Your task to perform on an android device: View the shopping cart on amazon. Search for razer nari on amazon, select the first entry, and add it to the cart. Image 0: 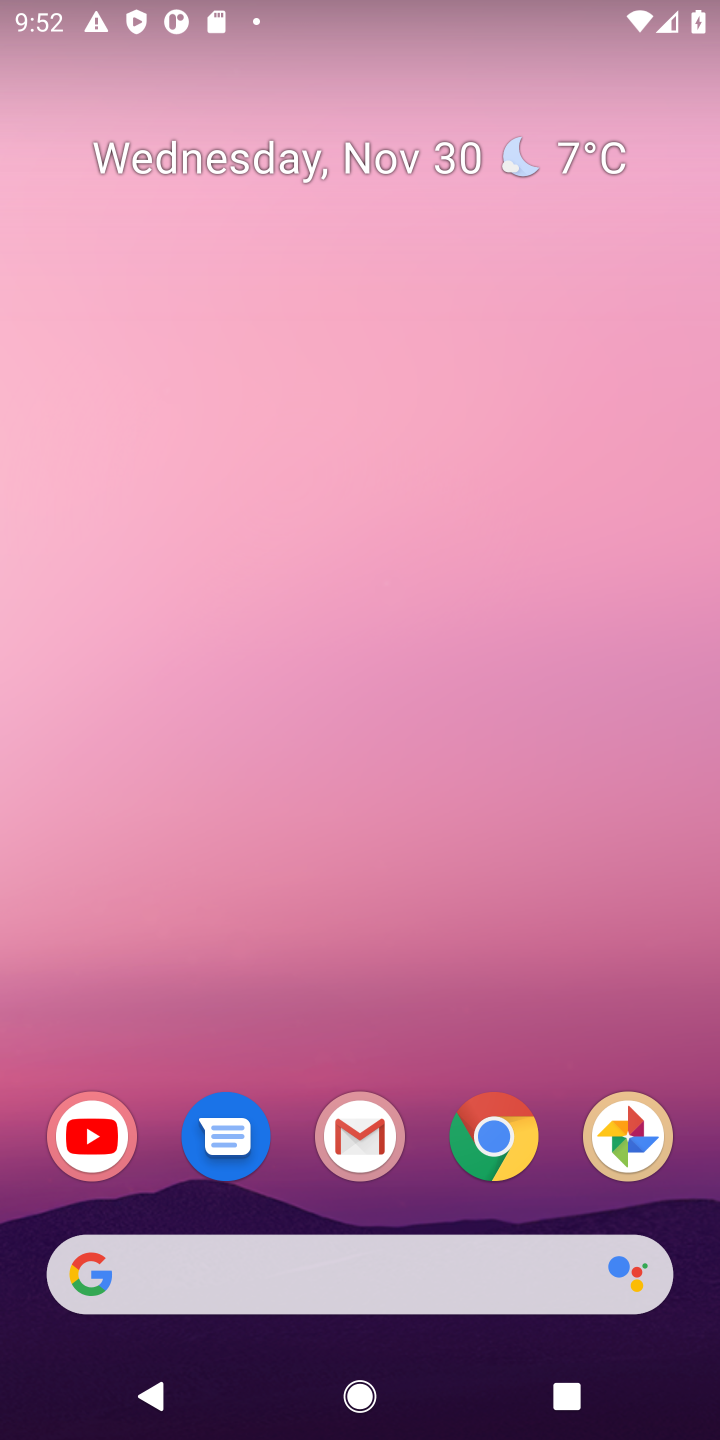
Step 0: click (507, 1131)
Your task to perform on an android device: View the shopping cart on amazon. Search for razer nari on amazon, select the first entry, and add it to the cart. Image 1: 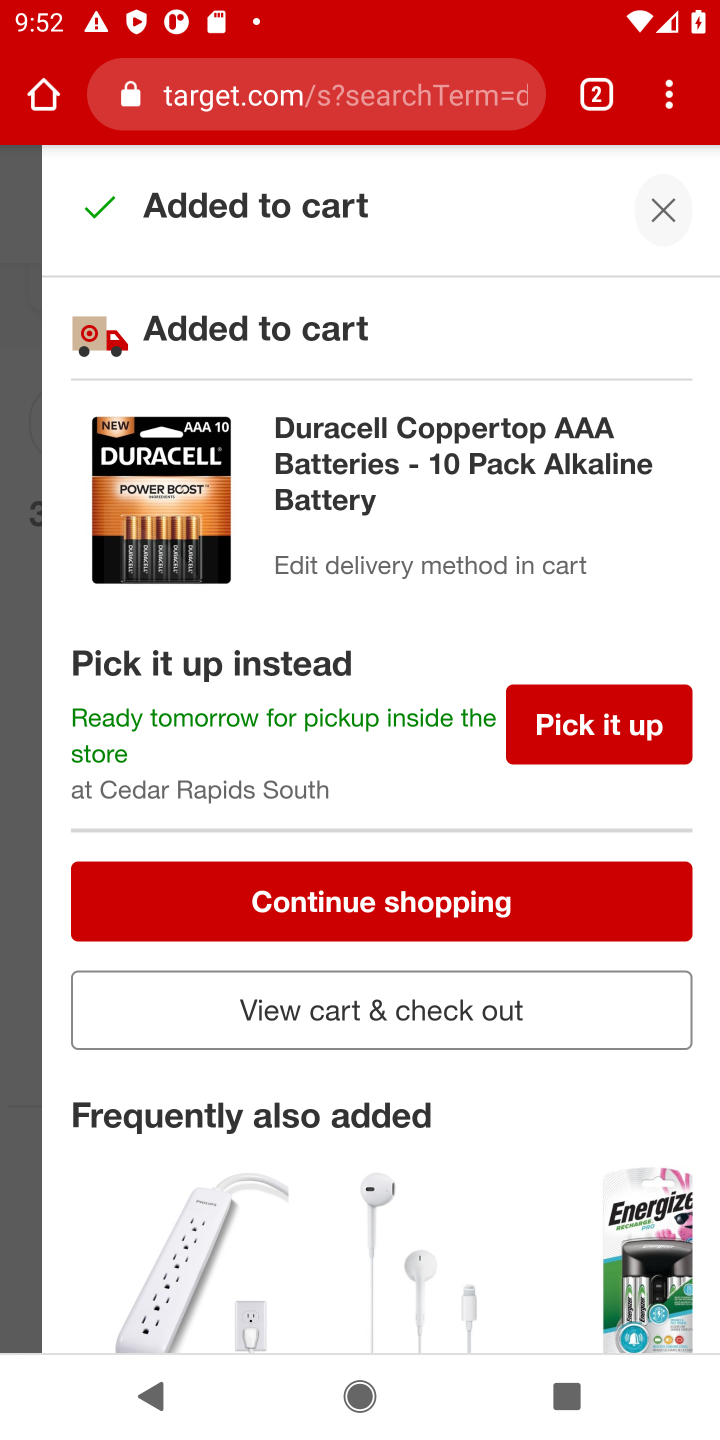
Step 1: click (222, 108)
Your task to perform on an android device: View the shopping cart on amazon. Search for razer nari on amazon, select the first entry, and add it to the cart. Image 2: 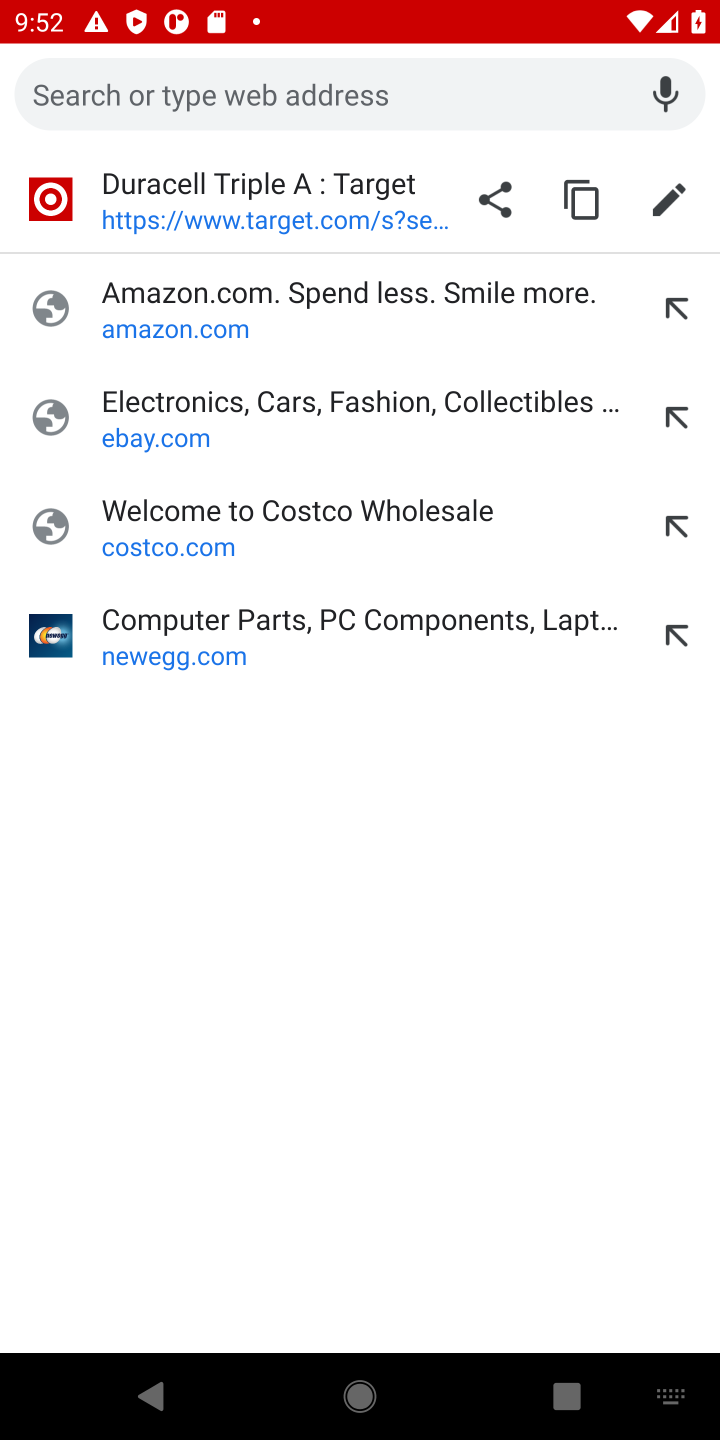
Step 2: click (158, 333)
Your task to perform on an android device: View the shopping cart on amazon. Search for razer nari on amazon, select the first entry, and add it to the cart. Image 3: 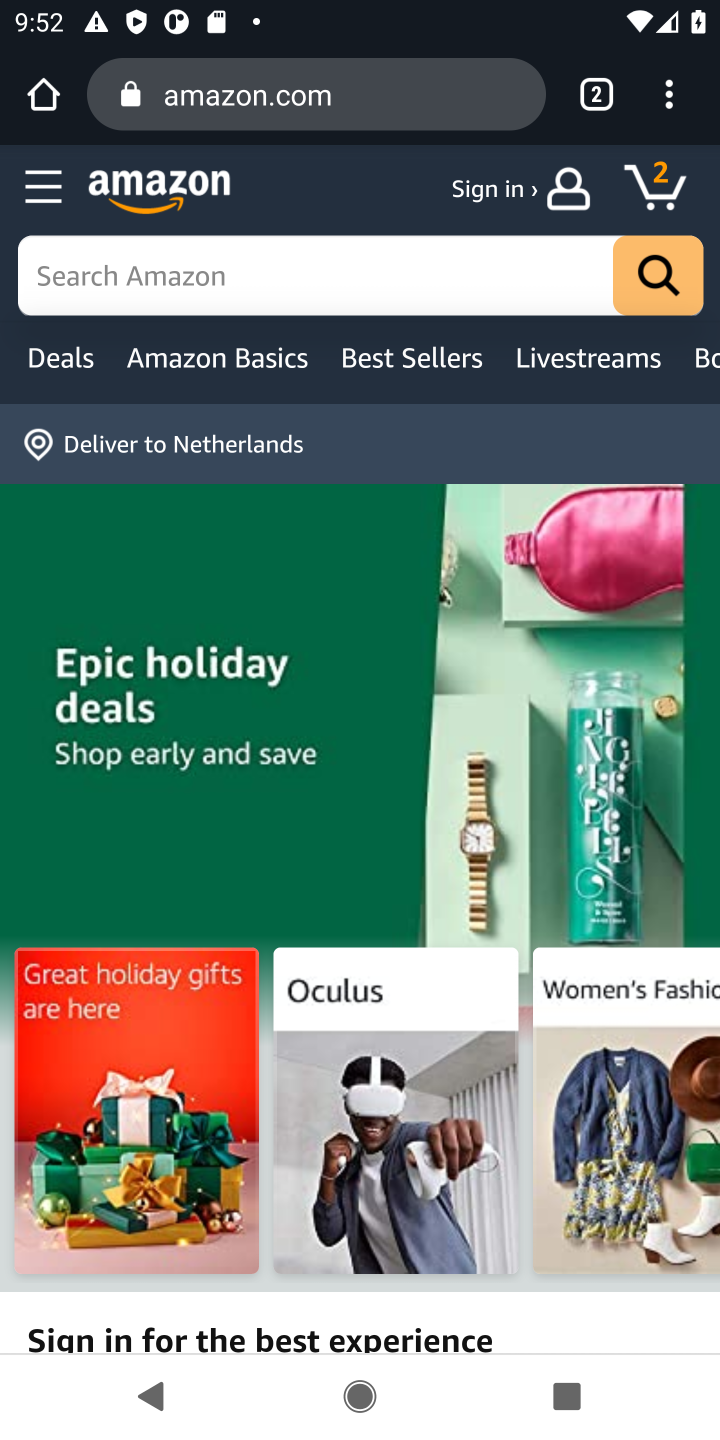
Step 3: click (663, 203)
Your task to perform on an android device: View the shopping cart on amazon. Search for razer nari on amazon, select the first entry, and add it to the cart. Image 4: 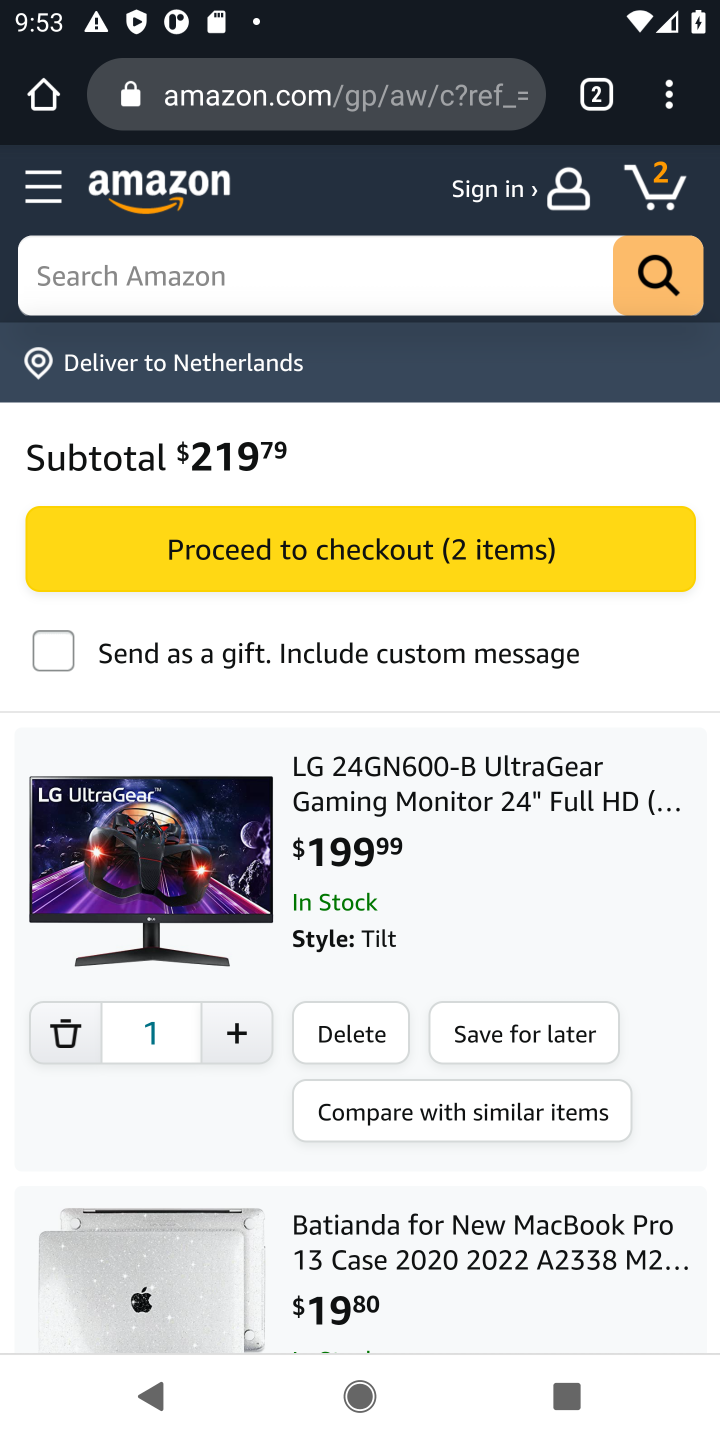
Step 4: drag from (669, 969) to (659, 609)
Your task to perform on an android device: View the shopping cart on amazon. Search for razer nari on amazon, select the first entry, and add it to the cart. Image 5: 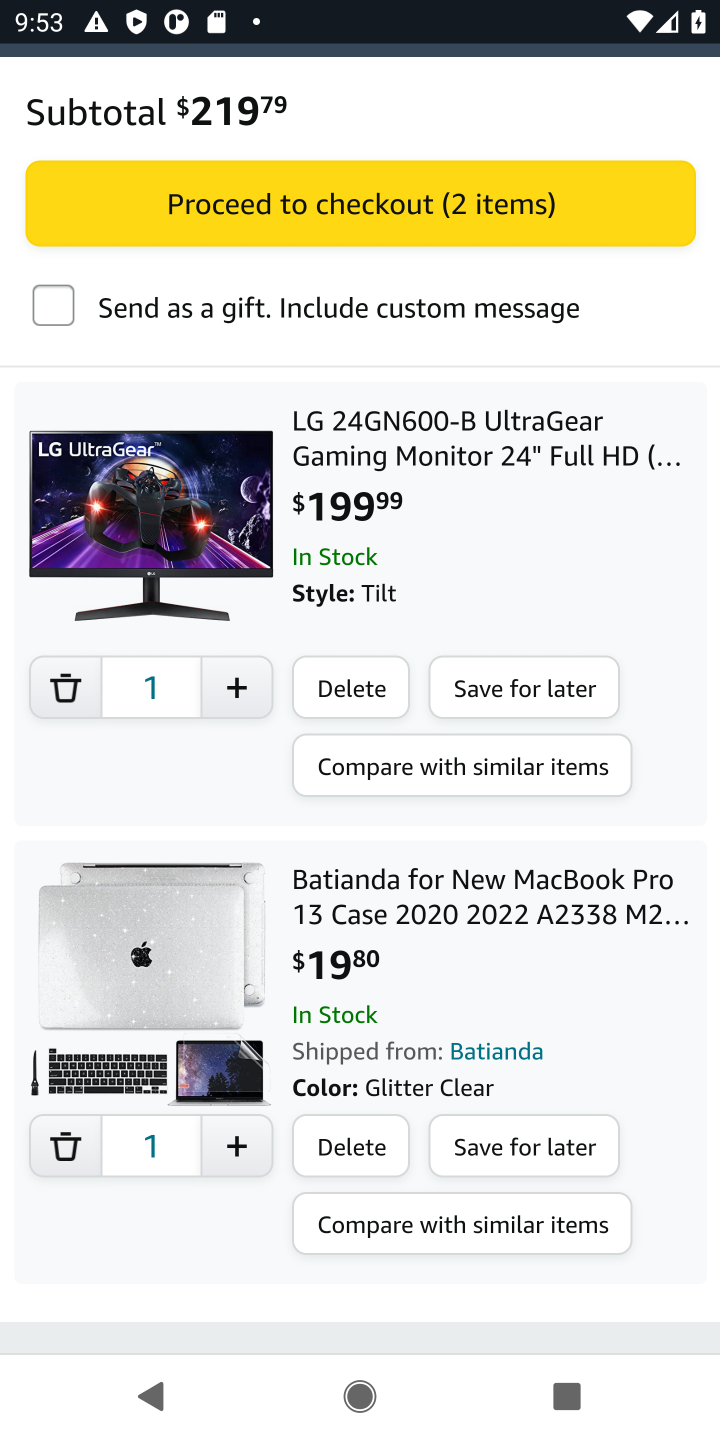
Step 5: drag from (676, 366) to (620, 942)
Your task to perform on an android device: View the shopping cart on amazon. Search for razer nari on amazon, select the first entry, and add it to the cart. Image 6: 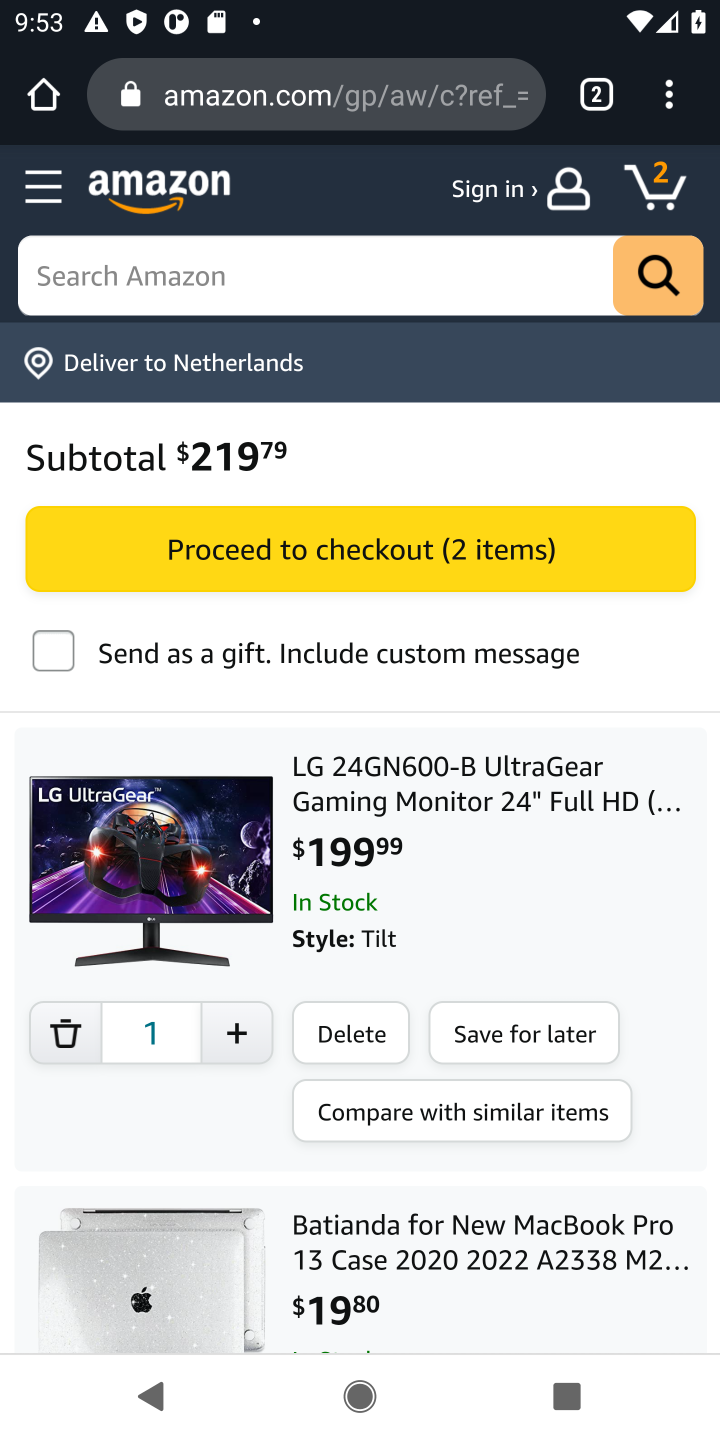
Step 6: click (167, 272)
Your task to perform on an android device: View the shopping cart on amazon. Search for razer nari on amazon, select the first entry, and add it to the cart. Image 7: 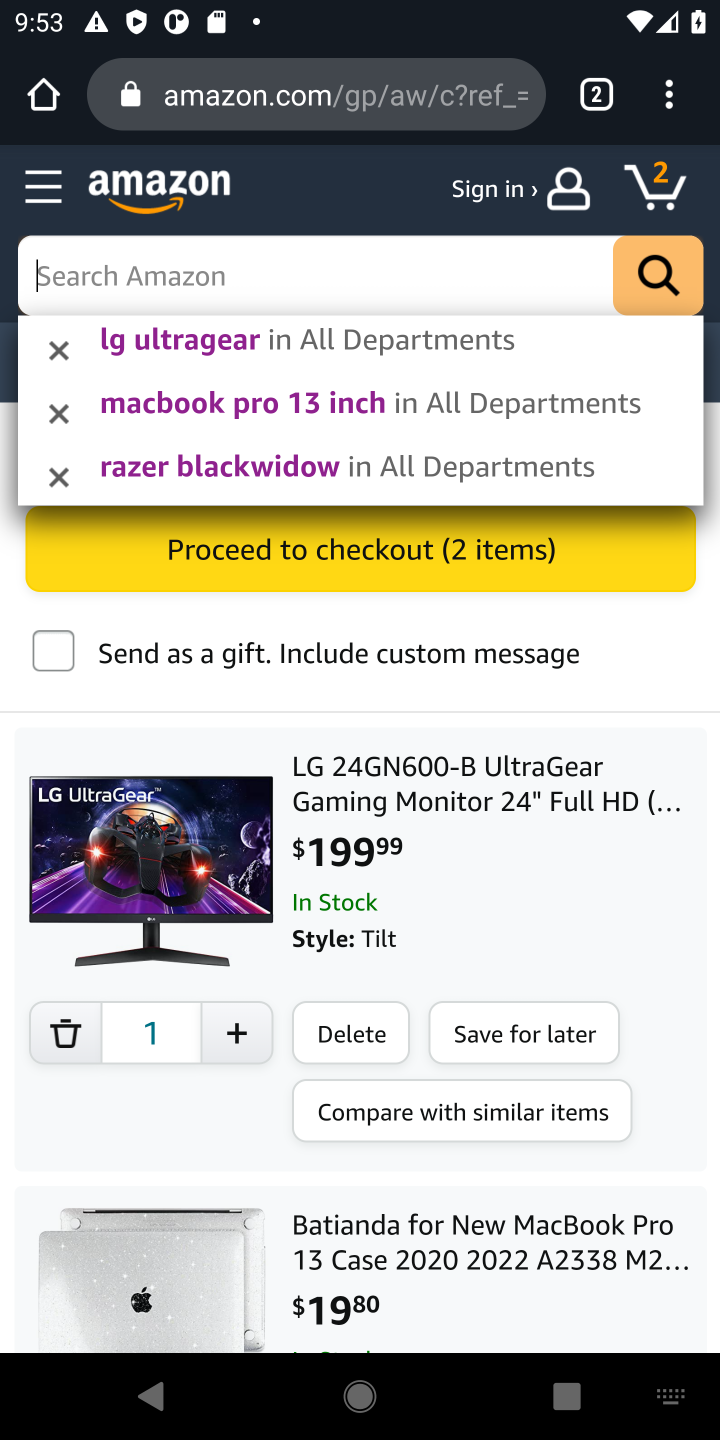
Step 7: type "razer nari"
Your task to perform on an android device: View the shopping cart on amazon. Search for razer nari on amazon, select the first entry, and add it to the cart. Image 8: 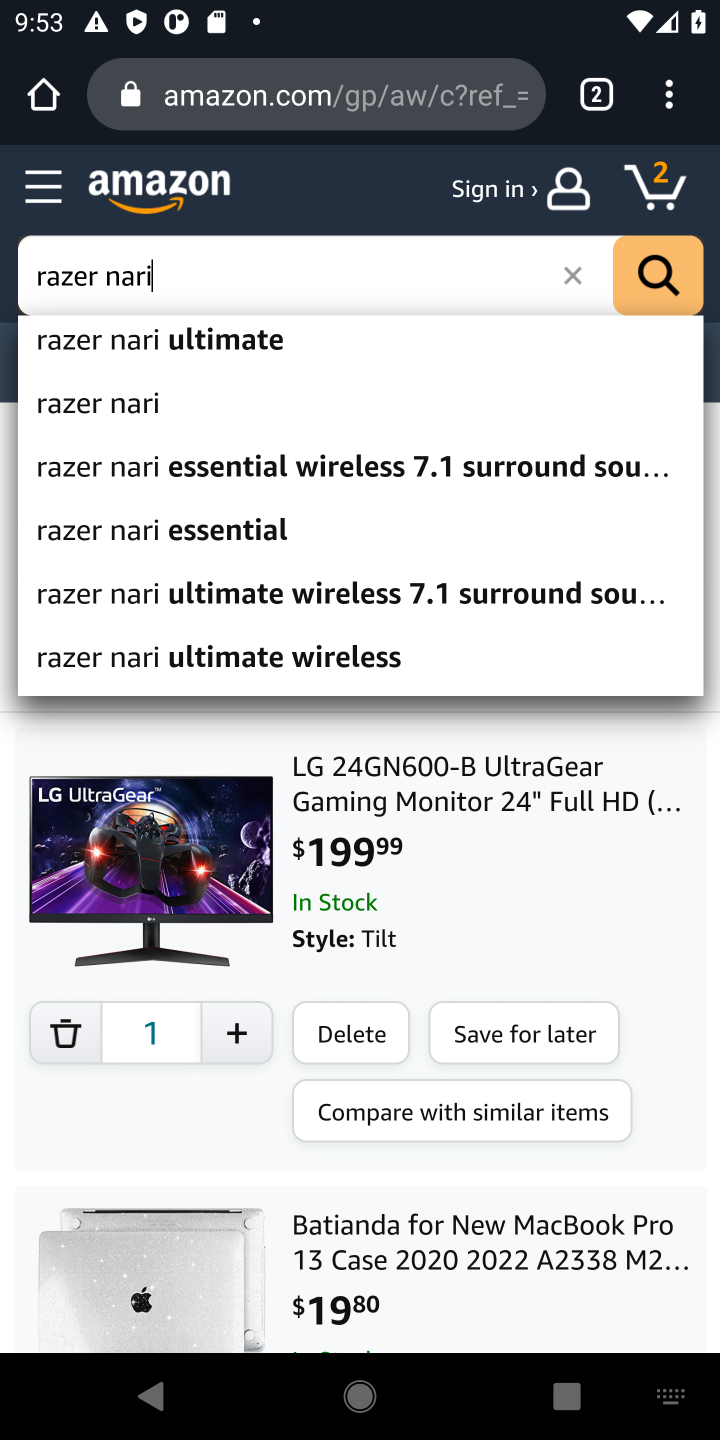
Step 8: click (116, 404)
Your task to perform on an android device: View the shopping cart on amazon. Search for razer nari on amazon, select the first entry, and add it to the cart. Image 9: 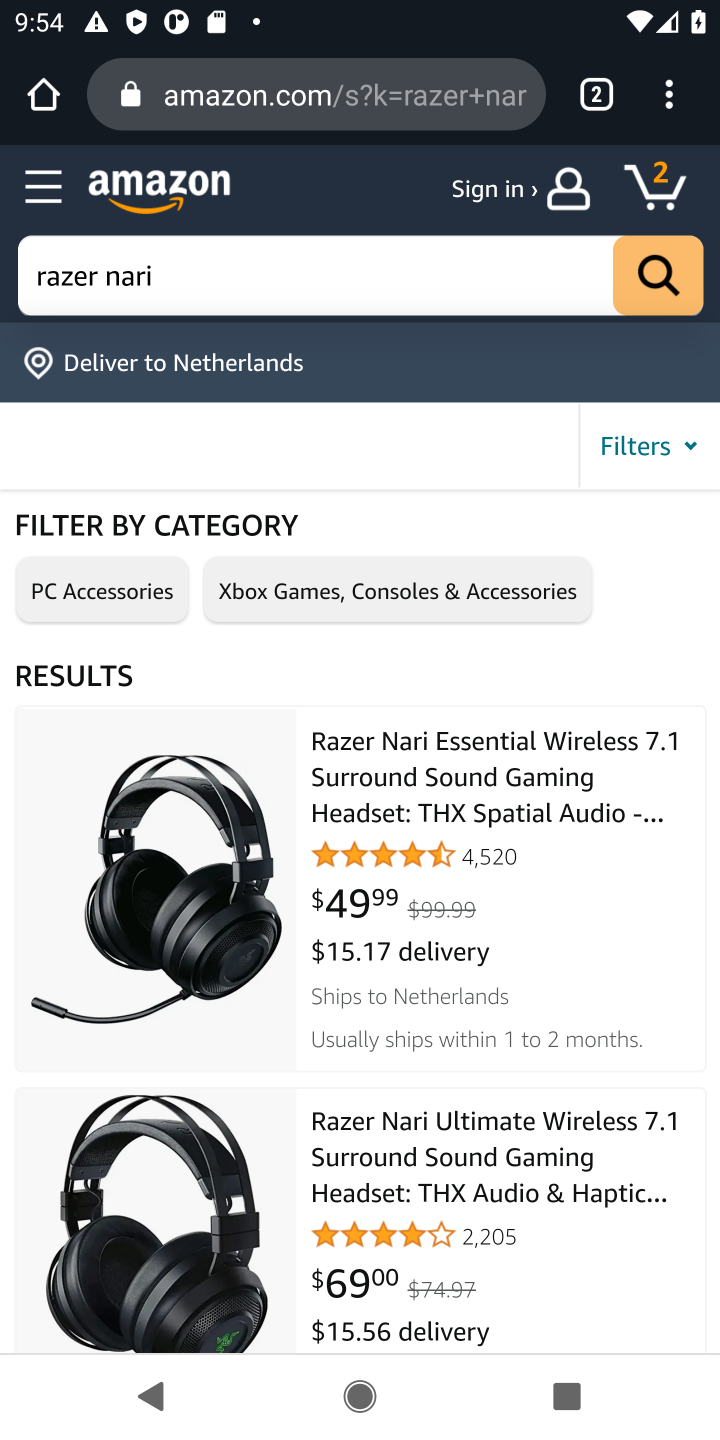
Step 9: click (384, 812)
Your task to perform on an android device: View the shopping cart on amazon. Search for razer nari on amazon, select the first entry, and add it to the cart. Image 10: 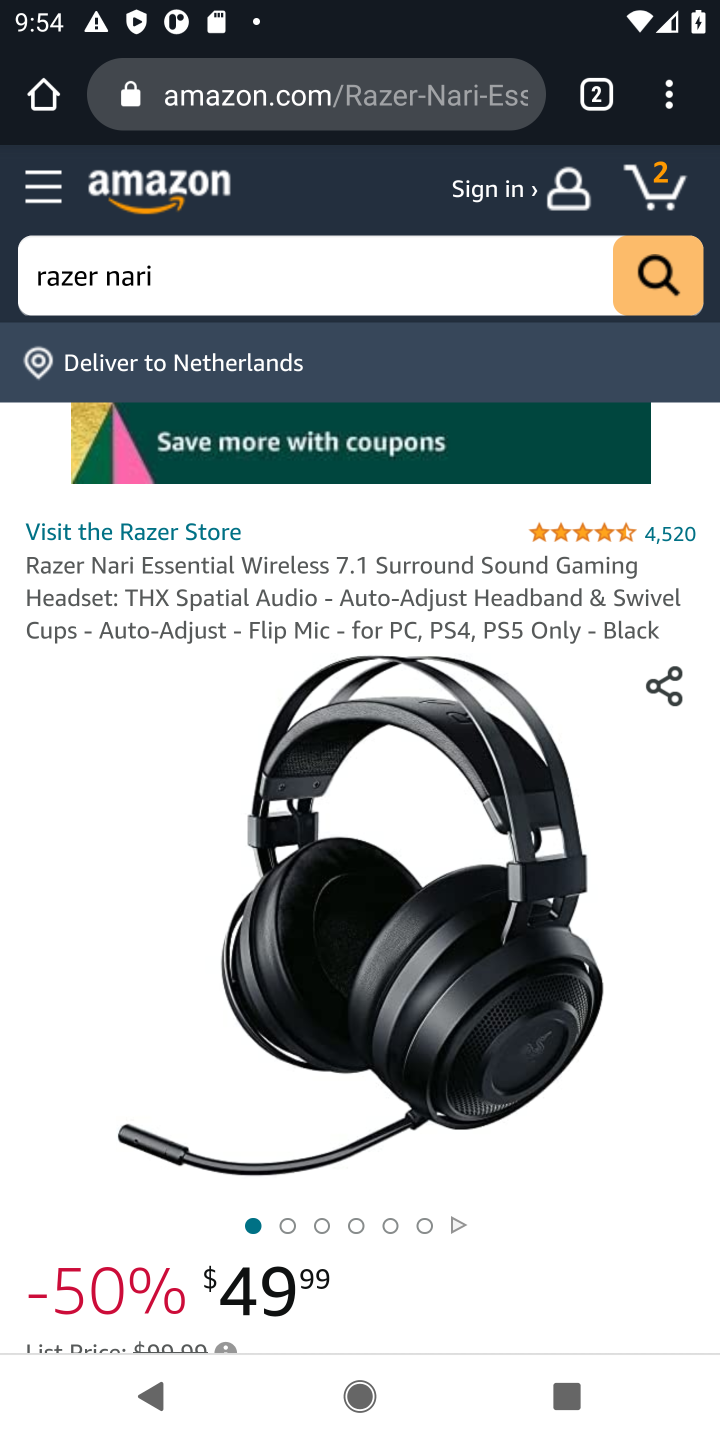
Step 10: drag from (268, 1047) to (196, 494)
Your task to perform on an android device: View the shopping cart on amazon. Search for razer nari on amazon, select the first entry, and add it to the cart. Image 11: 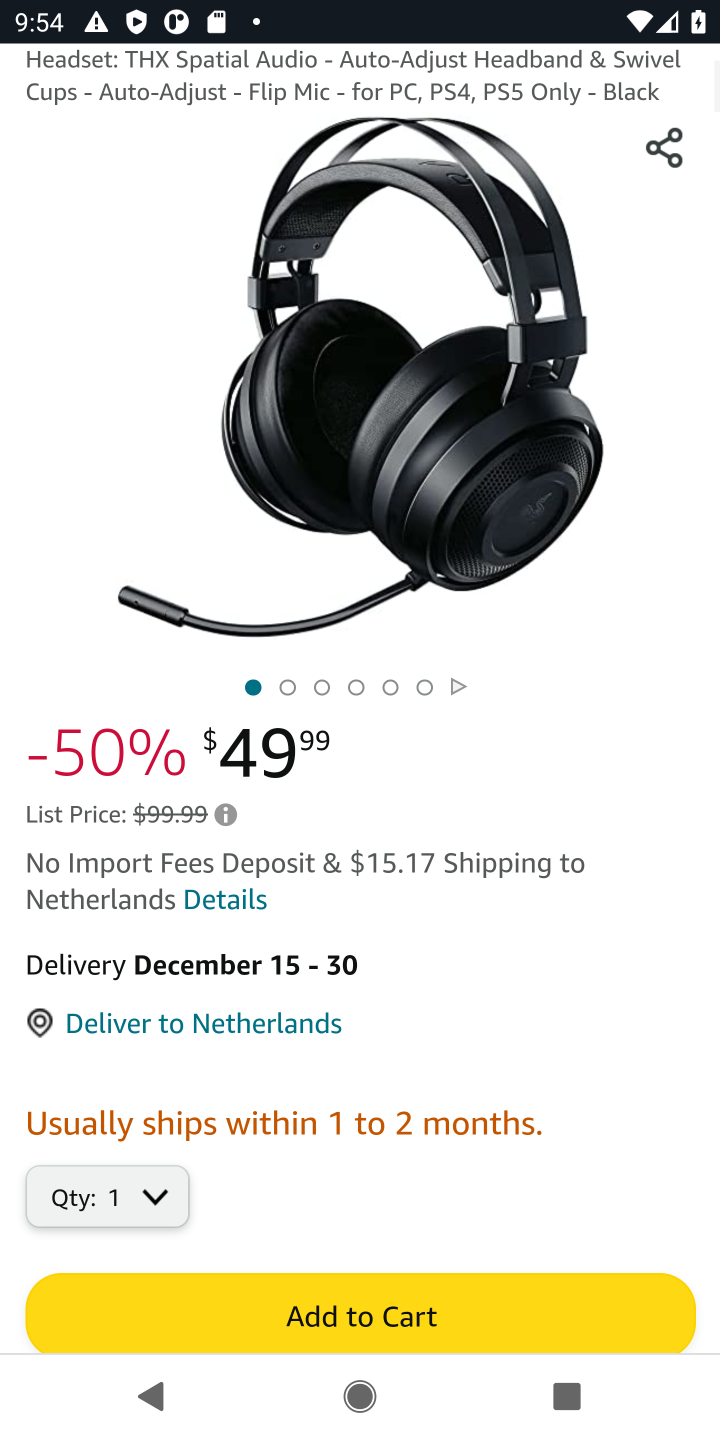
Step 11: drag from (259, 1013) to (225, 671)
Your task to perform on an android device: View the shopping cart on amazon. Search for razer nari on amazon, select the first entry, and add it to the cart. Image 12: 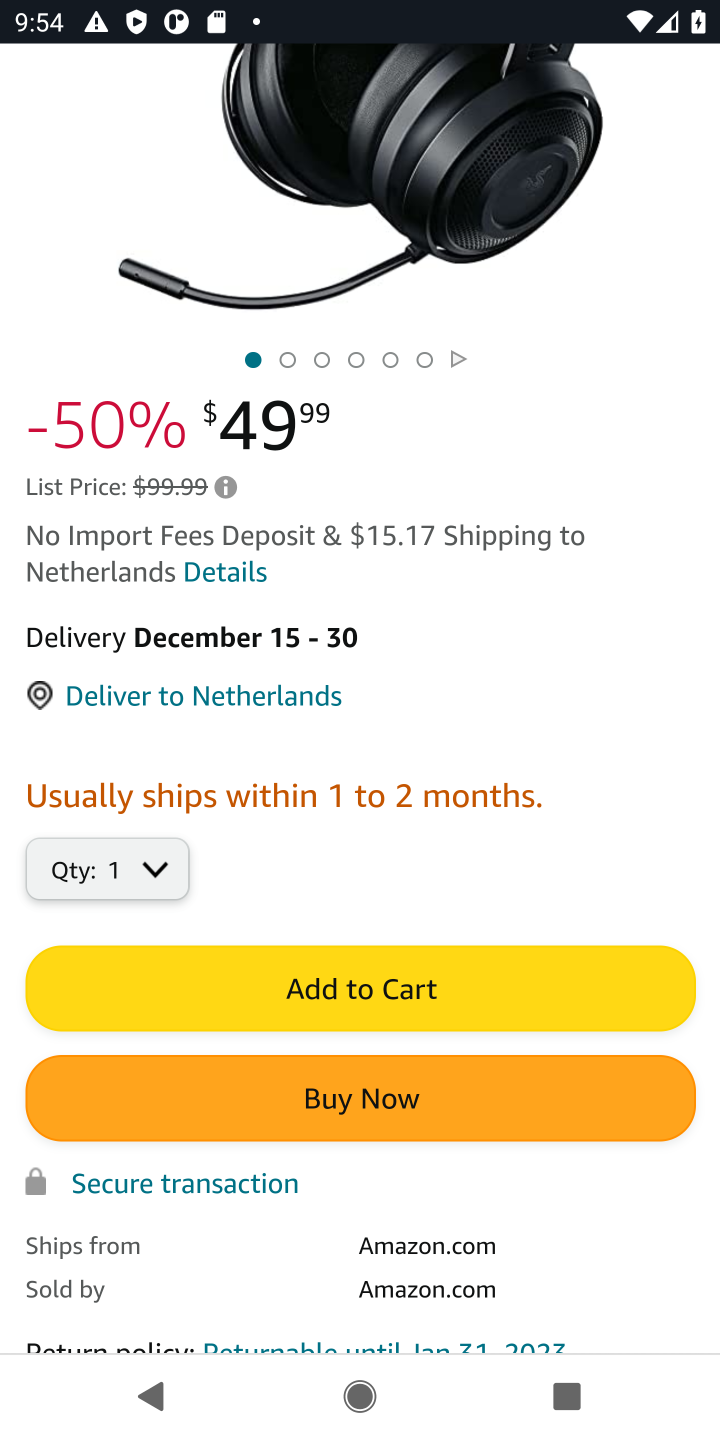
Step 12: click (321, 992)
Your task to perform on an android device: View the shopping cart on amazon. Search for razer nari on amazon, select the first entry, and add it to the cart. Image 13: 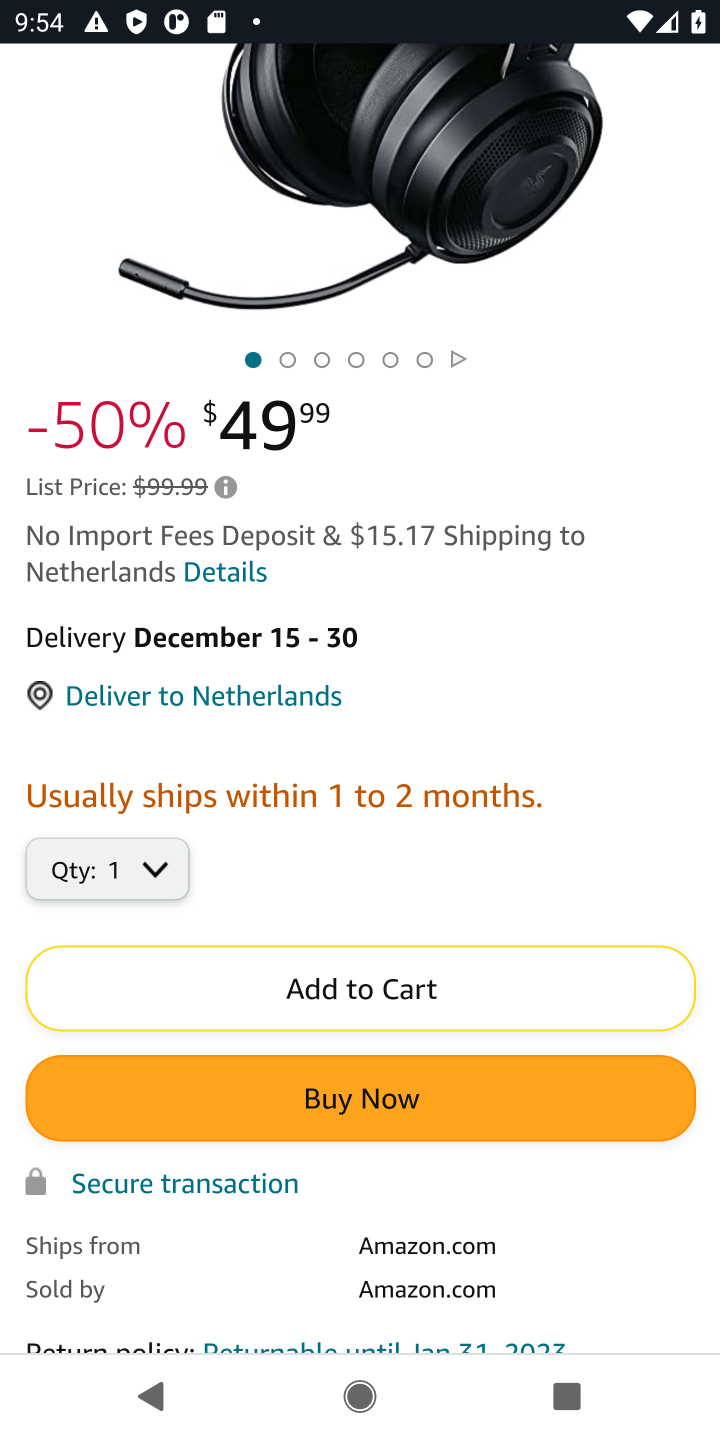
Step 13: task complete